Your task to perform on an android device: Go to Google maps Image 0: 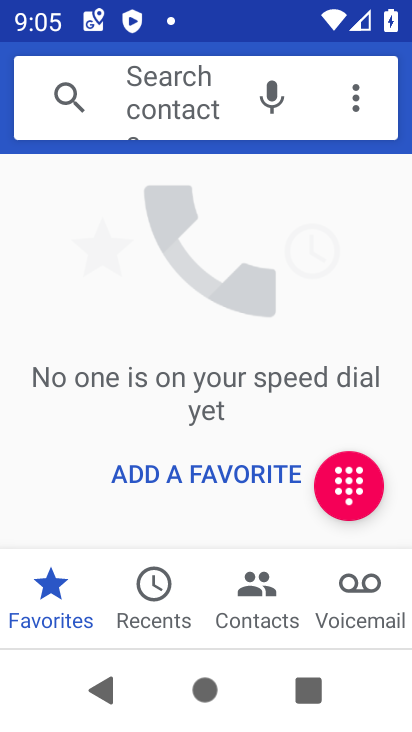
Step 0: press home button
Your task to perform on an android device: Go to Google maps Image 1: 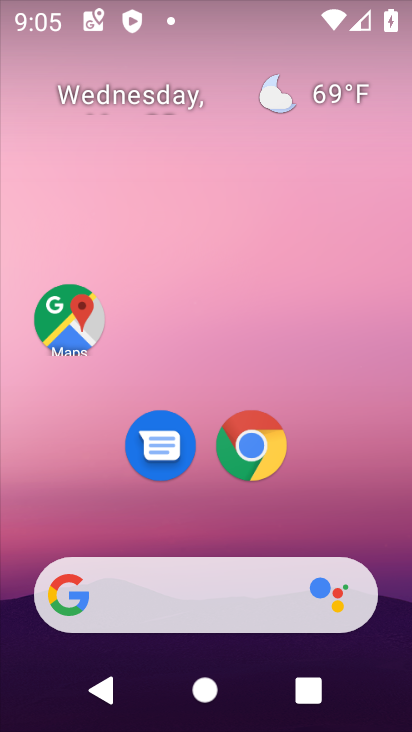
Step 1: drag from (289, 522) to (244, 87)
Your task to perform on an android device: Go to Google maps Image 2: 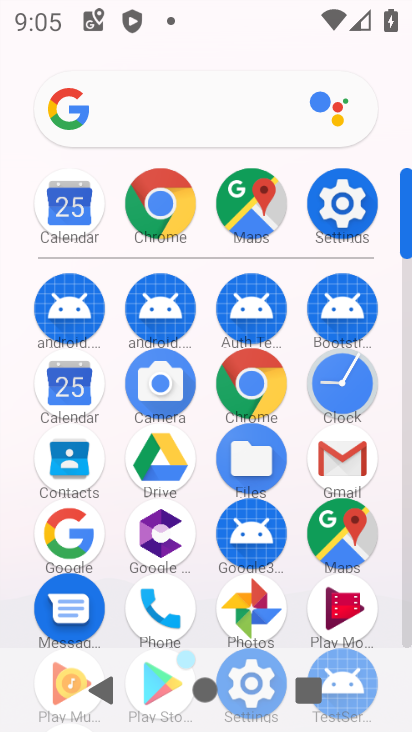
Step 2: click (250, 205)
Your task to perform on an android device: Go to Google maps Image 3: 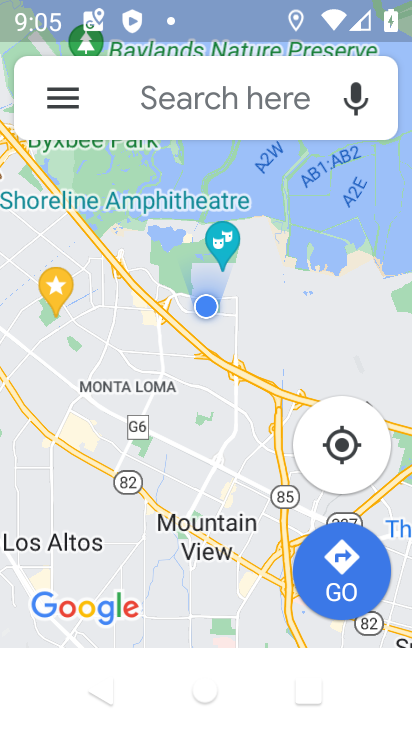
Step 3: task complete